Your task to perform on an android device: open a new tab in the chrome app Image 0: 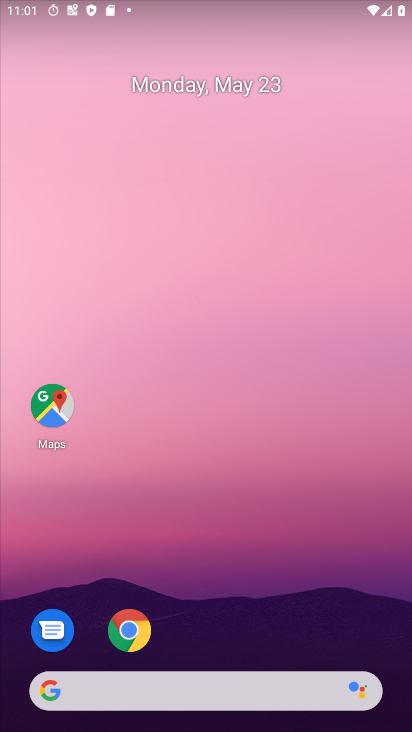
Step 0: click (127, 631)
Your task to perform on an android device: open a new tab in the chrome app Image 1: 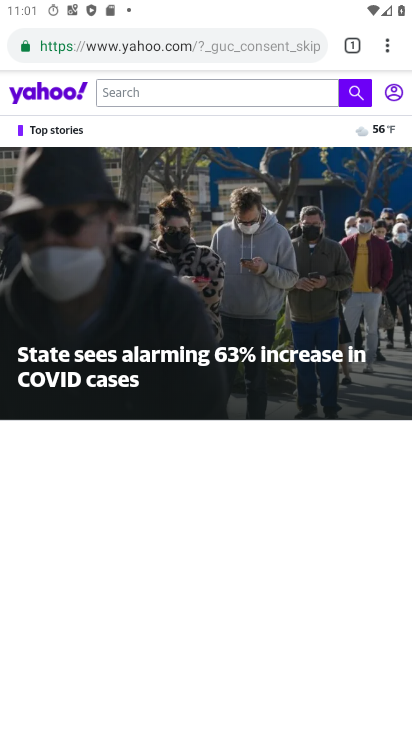
Step 1: click (392, 47)
Your task to perform on an android device: open a new tab in the chrome app Image 2: 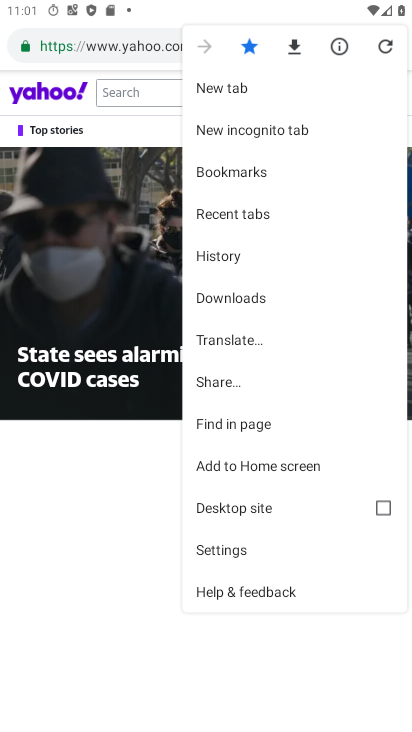
Step 2: click (227, 88)
Your task to perform on an android device: open a new tab in the chrome app Image 3: 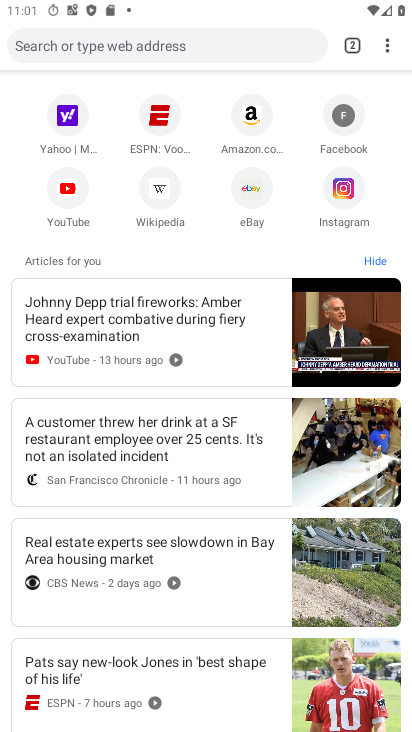
Step 3: task complete